Your task to perform on an android device: Check the news Image 0: 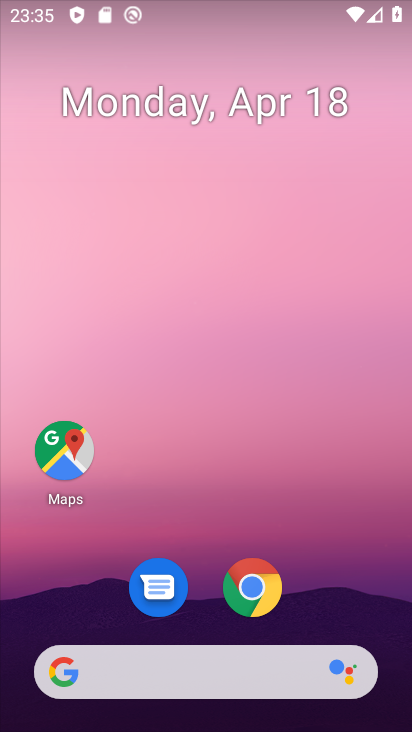
Step 0: drag from (384, 582) to (308, 73)
Your task to perform on an android device: Check the news Image 1: 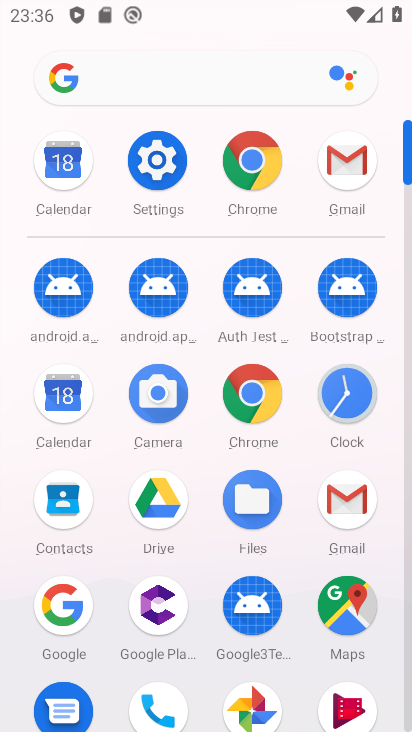
Step 1: click (267, 153)
Your task to perform on an android device: Check the news Image 2: 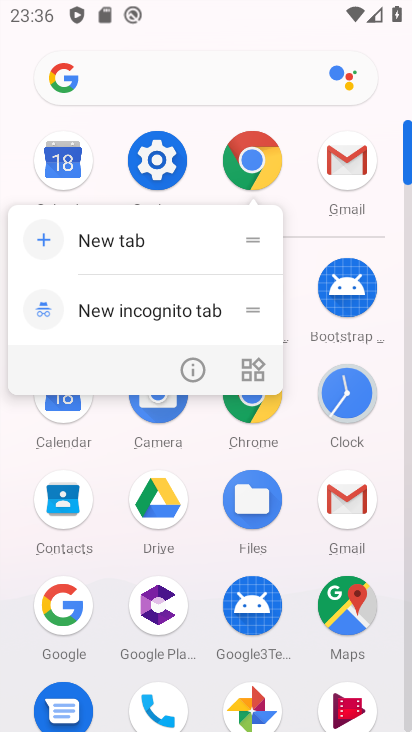
Step 2: click (266, 158)
Your task to perform on an android device: Check the news Image 3: 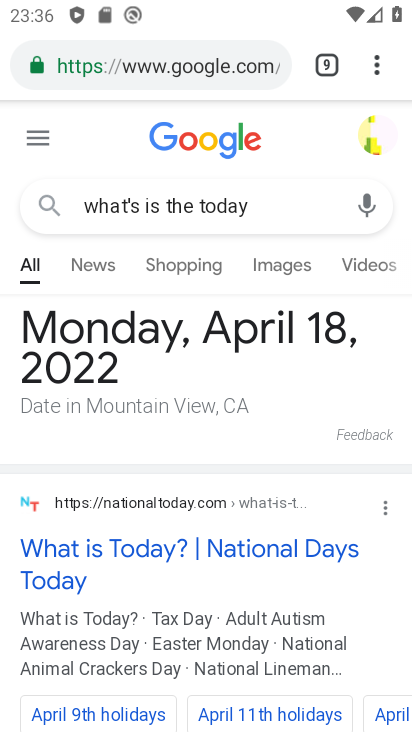
Step 3: click (331, 63)
Your task to perform on an android device: Check the news Image 4: 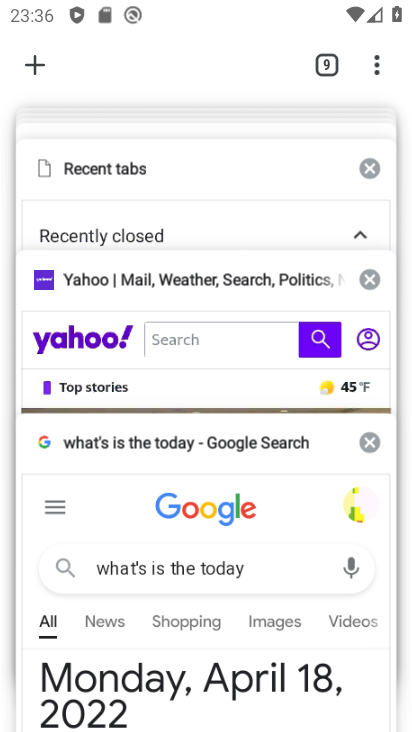
Step 4: click (38, 63)
Your task to perform on an android device: Check the news Image 5: 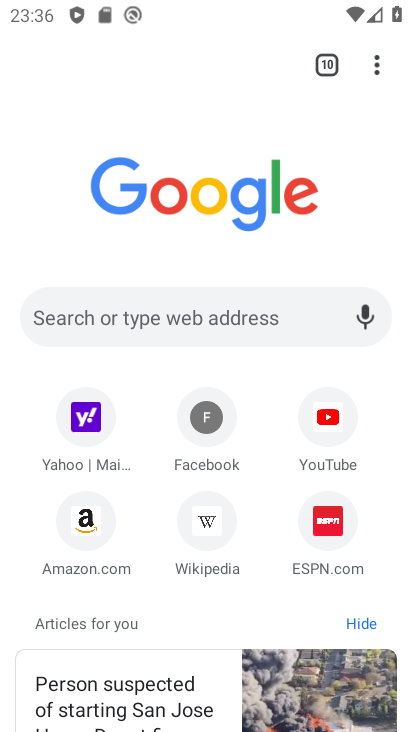
Step 5: click (120, 306)
Your task to perform on an android device: Check the news Image 6: 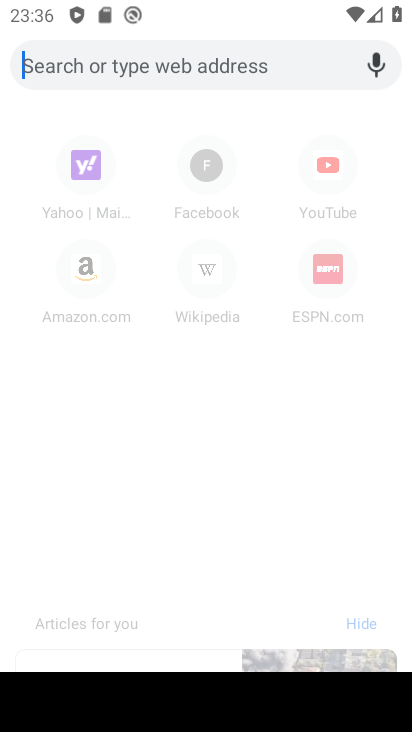
Step 6: type "news"
Your task to perform on an android device: Check the news Image 7: 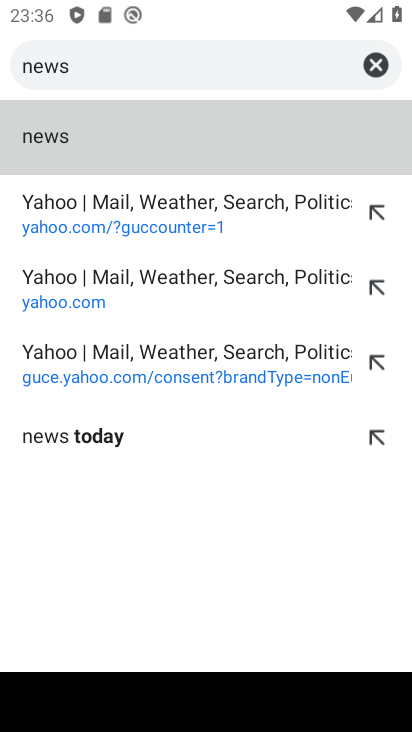
Step 7: click (61, 132)
Your task to perform on an android device: Check the news Image 8: 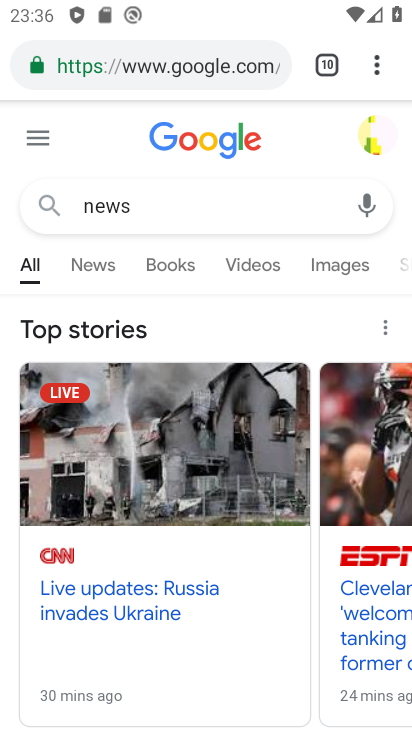
Step 8: task complete